Your task to perform on an android device: set an alarm Image 0: 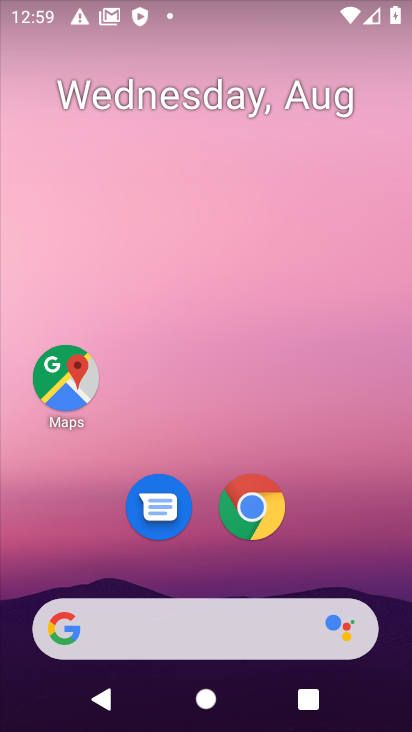
Step 0: drag from (193, 589) to (127, 131)
Your task to perform on an android device: set an alarm Image 1: 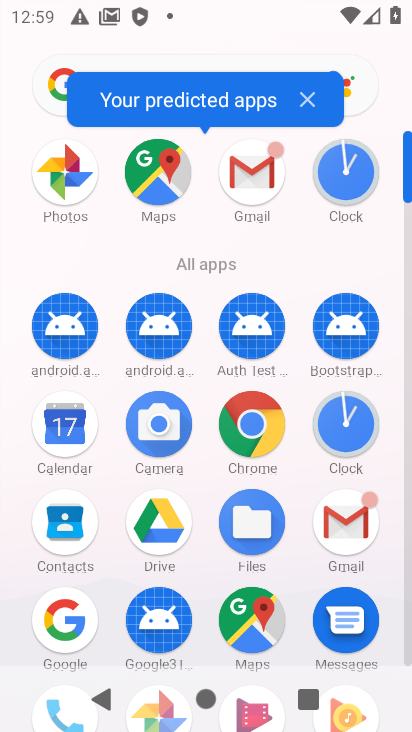
Step 1: click (357, 433)
Your task to perform on an android device: set an alarm Image 2: 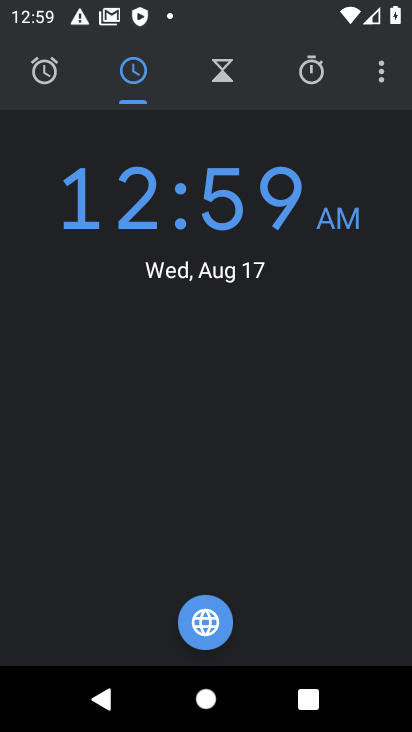
Step 2: click (39, 82)
Your task to perform on an android device: set an alarm Image 3: 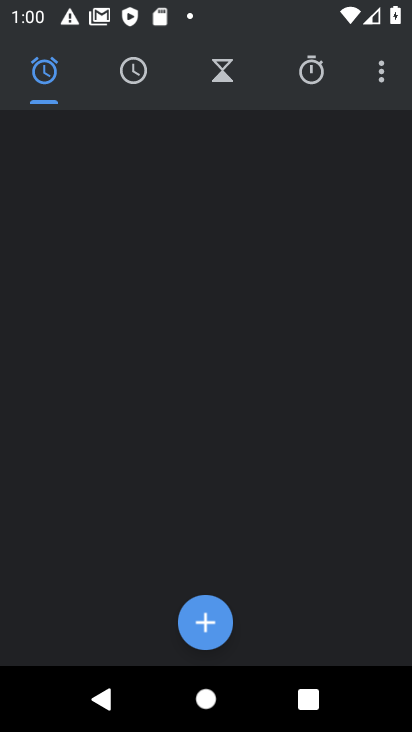
Step 3: click (207, 632)
Your task to perform on an android device: set an alarm Image 4: 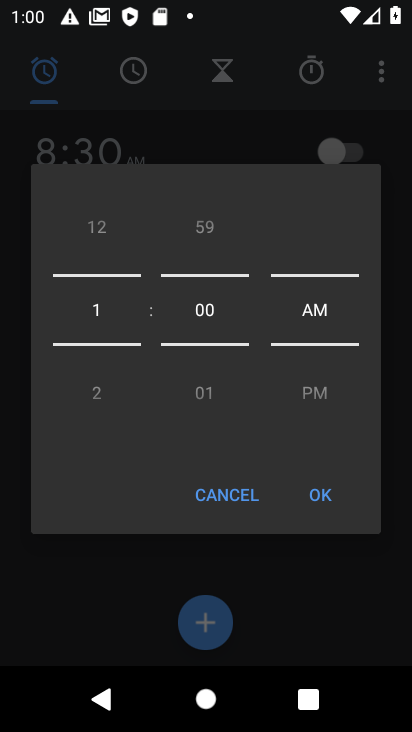
Step 4: click (320, 495)
Your task to perform on an android device: set an alarm Image 5: 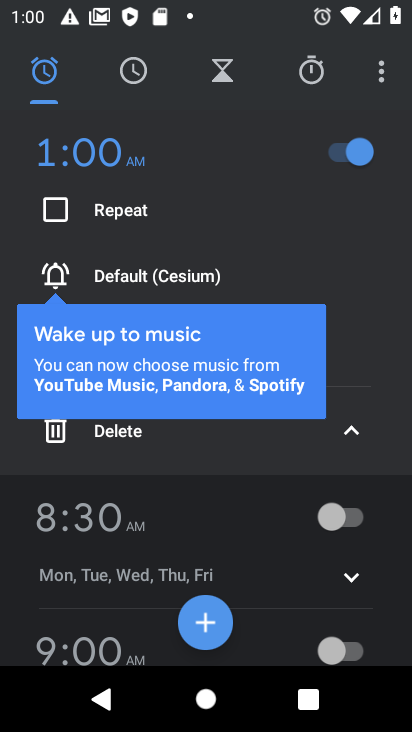
Step 5: task complete